Your task to perform on an android device: allow cookies in the chrome app Image 0: 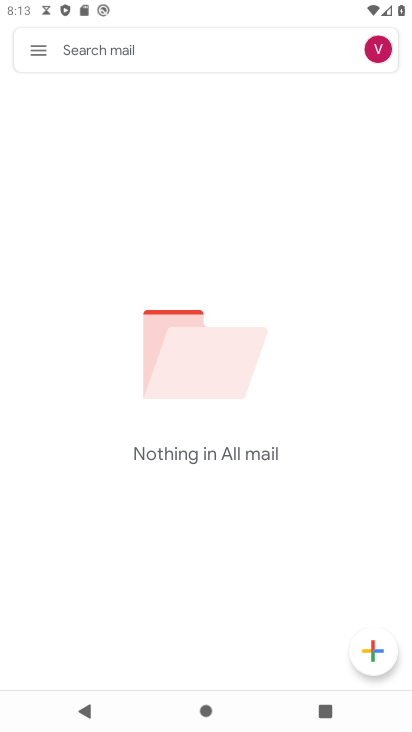
Step 0: press home button
Your task to perform on an android device: allow cookies in the chrome app Image 1: 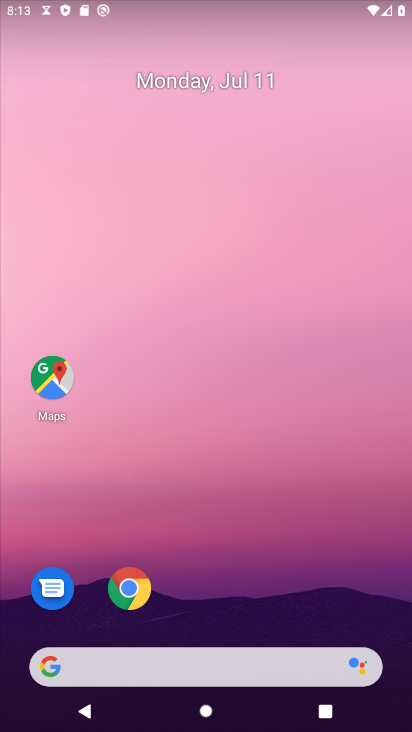
Step 1: click (139, 586)
Your task to perform on an android device: allow cookies in the chrome app Image 2: 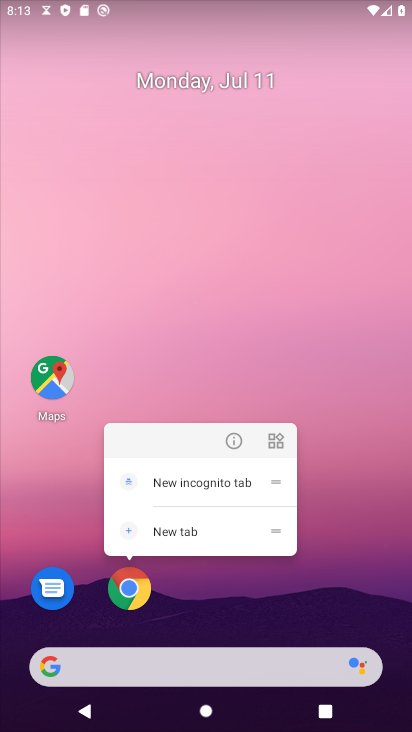
Step 2: click (126, 589)
Your task to perform on an android device: allow cookies in the chrome app Image 3: 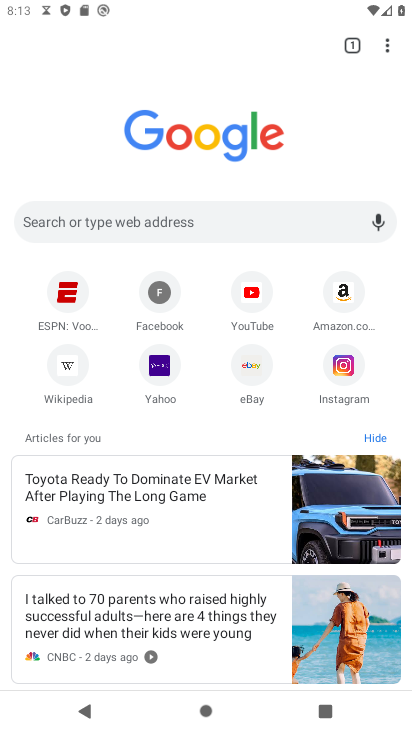
Step 3: drag from (382, 42) to (233, 371)
Your task to perform on an android device: allow cookies in the chrome app Image 4: 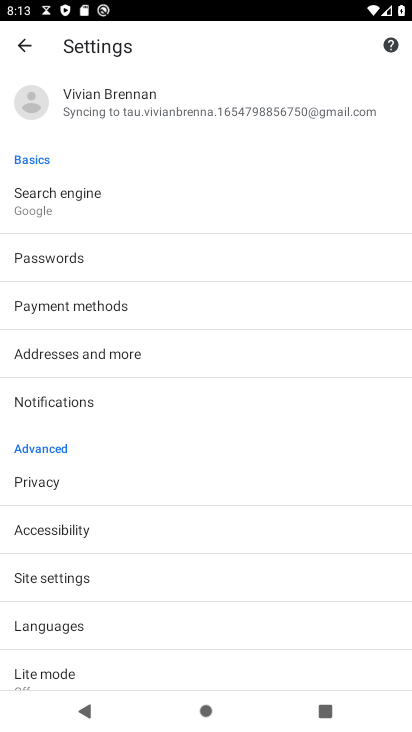
Step 4: click (76, 581)
Your task to perform on an android device: allow cookies in the chrome app Image 5: 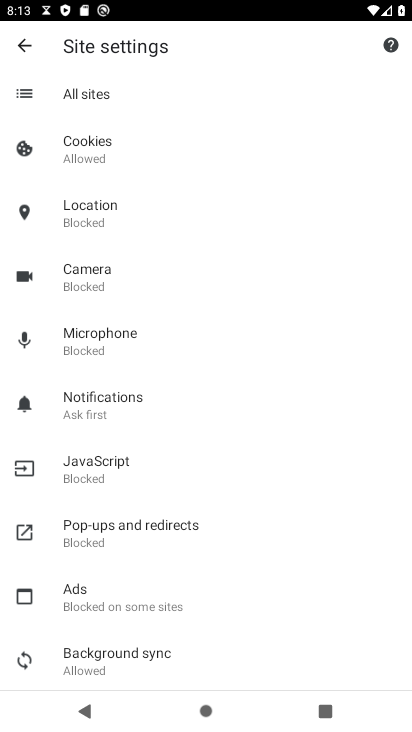
Step 5: click (134, 145)
Your task to perform on an android device: allow cookies in the chrome app Image 6: 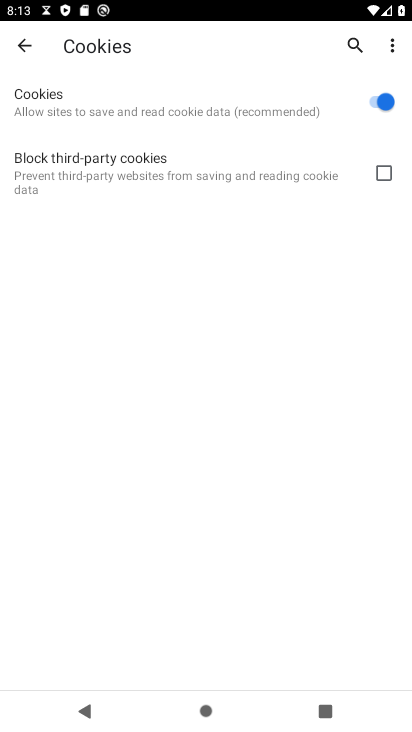
Step 6: task complete